Your task to perform on an android device: Go to ESPN.com Image 0: 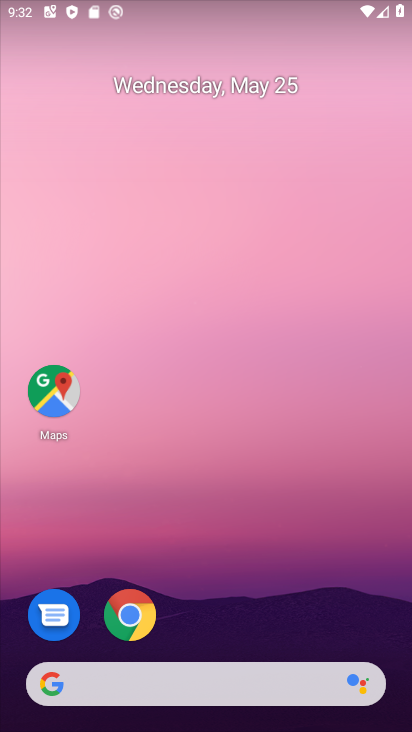
Step 0: click (285, 681)
Your task to perform on an android device: Go to ESPN.com Image 1: 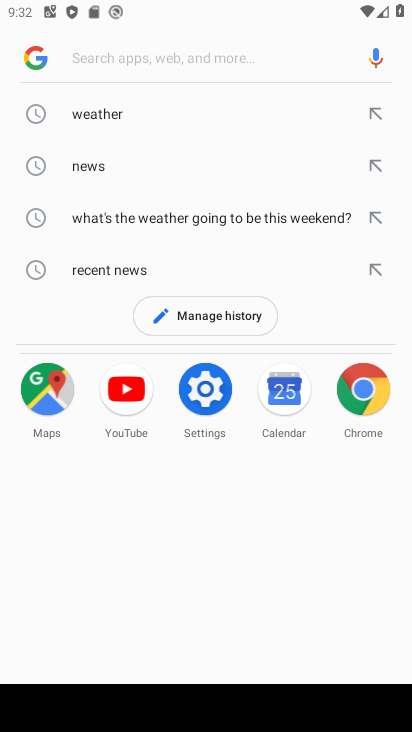
Step 1: type "espn.com"
Your task to perform on an android device: Go to ESPN.com Image 2: 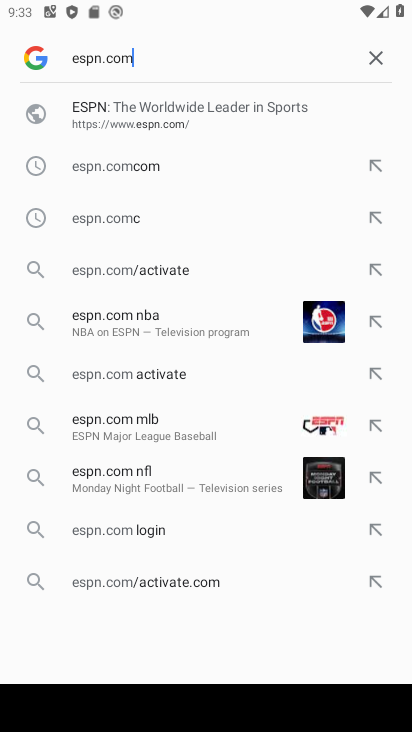
Step 2: click (81, 110)
Your task to perform on an android device: Go to ESPN.com Image 3: 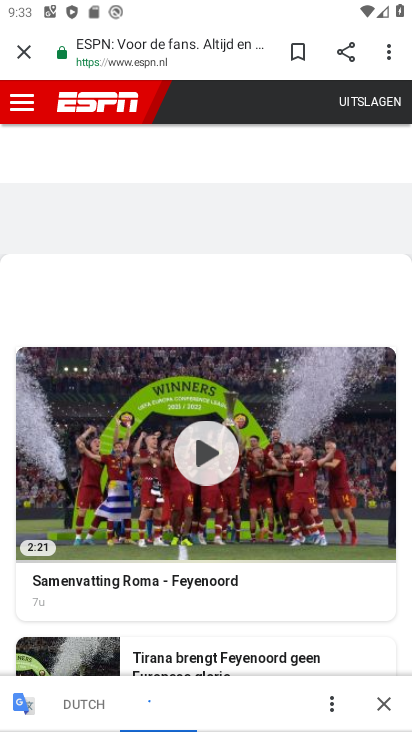
Step 3: task complete